Your task to perform on an android device: Open ESPN.com Image 0: 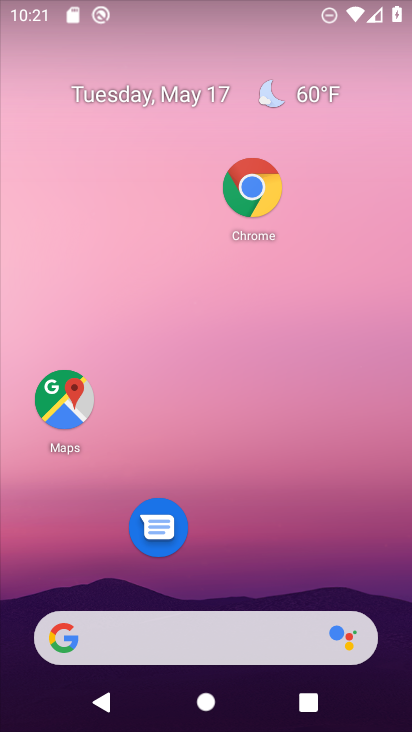
Step 0: click (251, 192)
Your task to perform on an android device: Open ESPN.com Image 1: 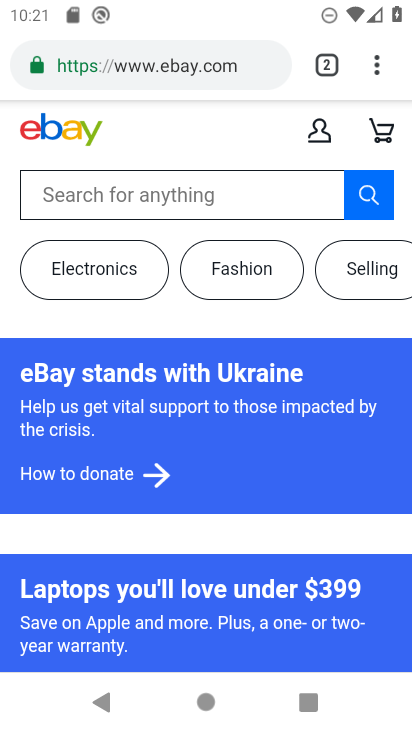
Step 1: click (196, 54)
Your task to perform on an android device: Open ESPN.com Image 2: 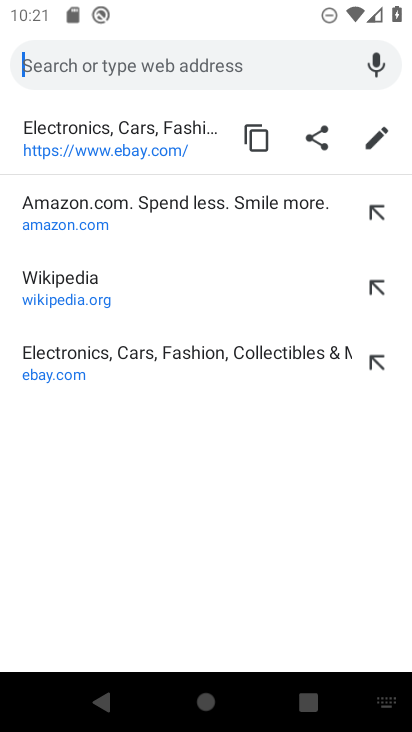
Step 2: type "espn.com"
Your task to perform on an android device: Open ESPN.com Image 3: 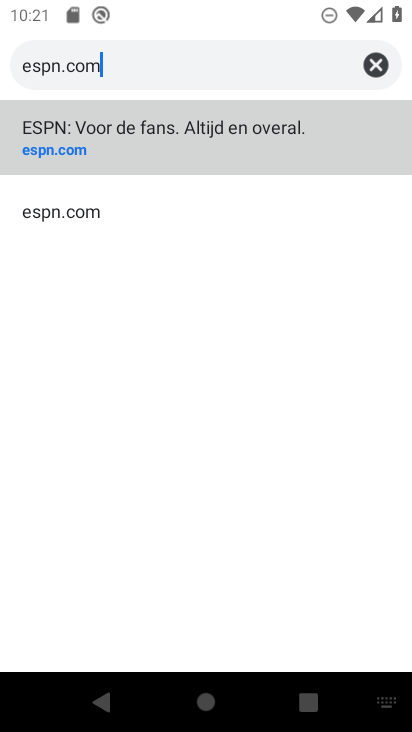
Step 3: click (218, 151)
Your task to perform on an android device: Open ESPN.com Image 4: 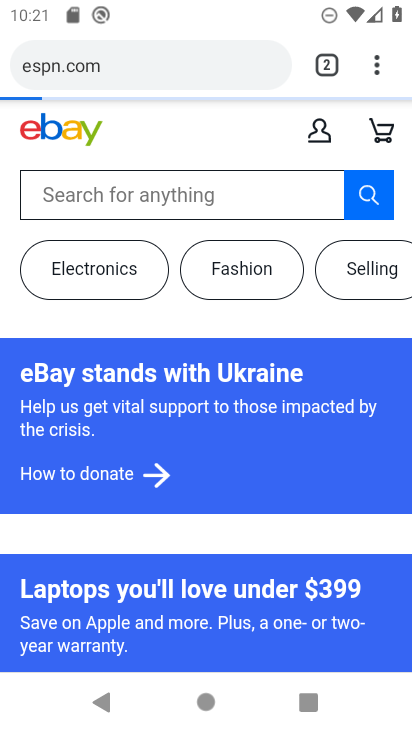
Step 4: task complete